Your task to perform on an android device: Is it going to rain today? Image 0: 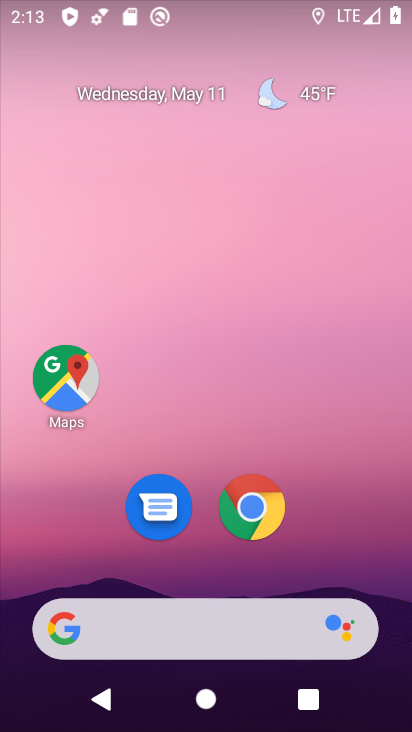
Step 0: drag from (355, 541) to (226, 27)
Your task to perform on an android device: Is it going to rain today? Image 1: 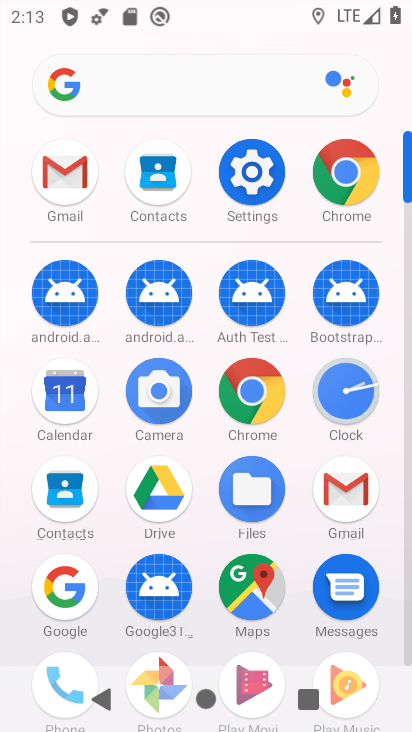
Step 1: drag from (4, 440) to (23, 203)
Your task to perform on an android device: Is it going to rain today? Image 2: 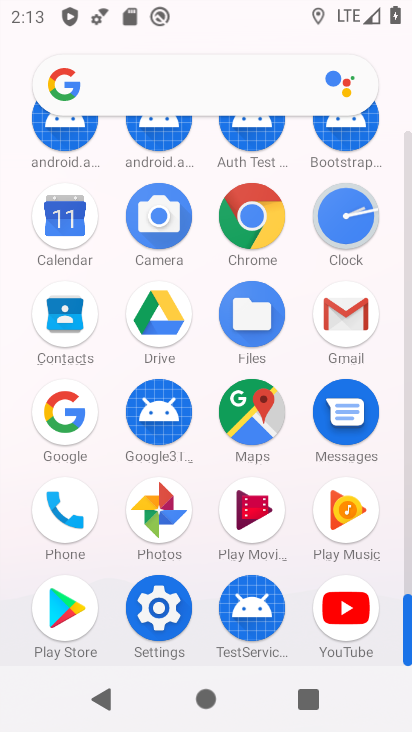
Step 2: click (255, 212)
Your task to perform on an android device: Is it going to rain today? Image 3: 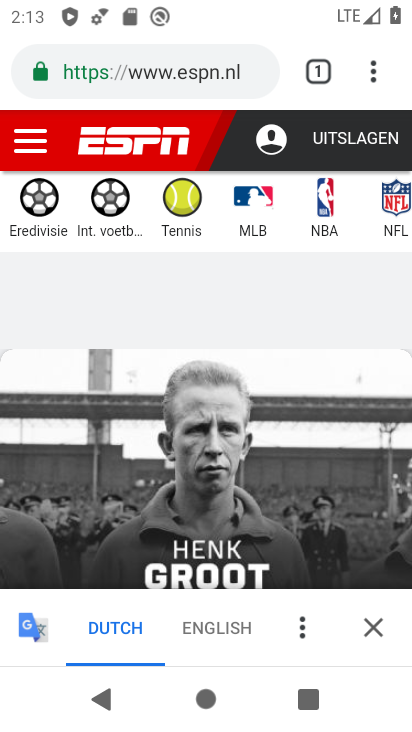
Step 3: click (151, 71)
Your task to perform on an android device: Is it going to rain today? Image 4: 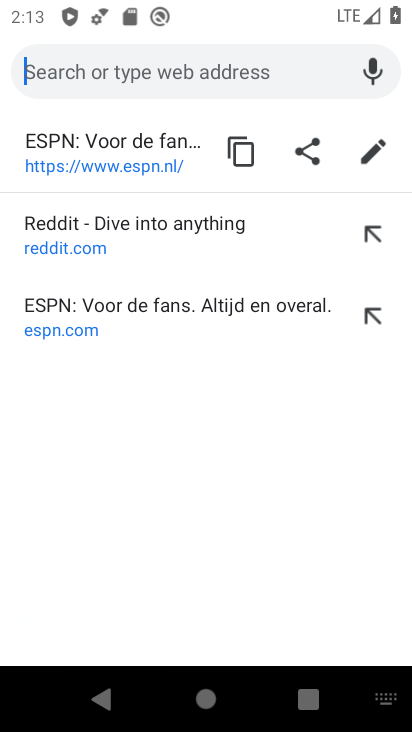
Step 4: type "Is it going to rain today?"
Your task to perform on an android device: Is it going to rain today? Image 5: 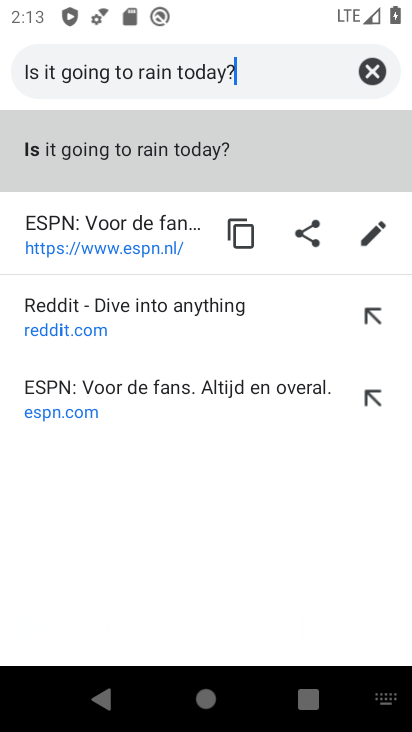
Step 5: type ""
Your task to perform on an android device: Is it going to rain today? Image 6: 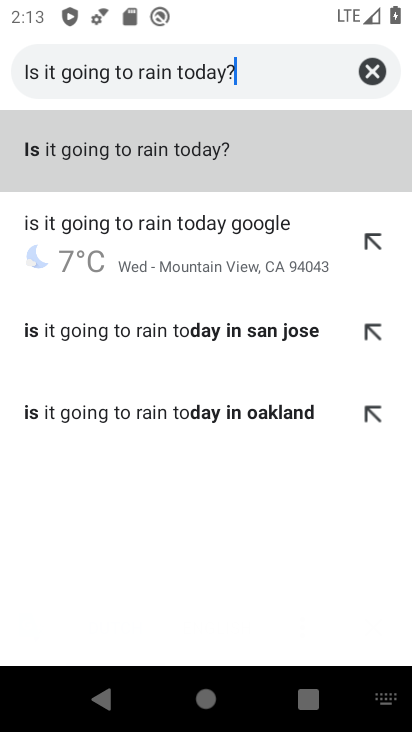
Step 6: click (140, 141)
Your task to perform on an android device: Is it going to rain today? Image 7: 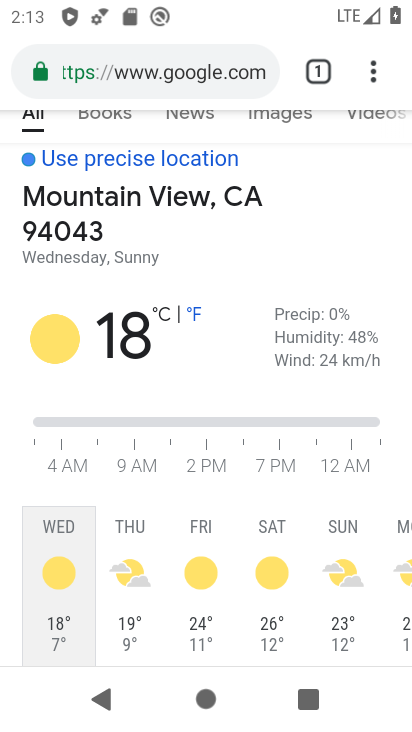
Step 7: task complete